Your task to perform on an android device: toggle javascript in the chrome app Image 0: 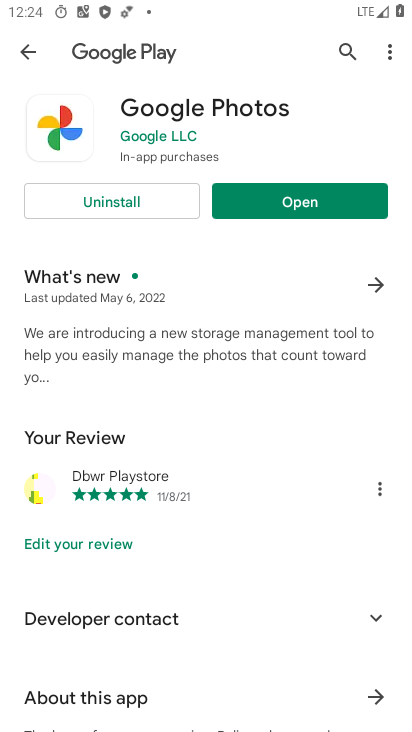
Step 0: press home button
Your task to perform on an android device: toggle javascript in the chrome app Image 1: 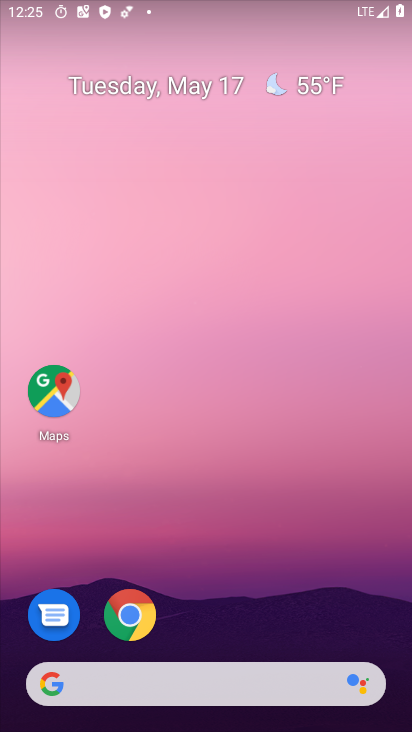
Step 1: click (141, 627)
Your task to perform on an android device: toggle javascript in the chrome app Image 2: 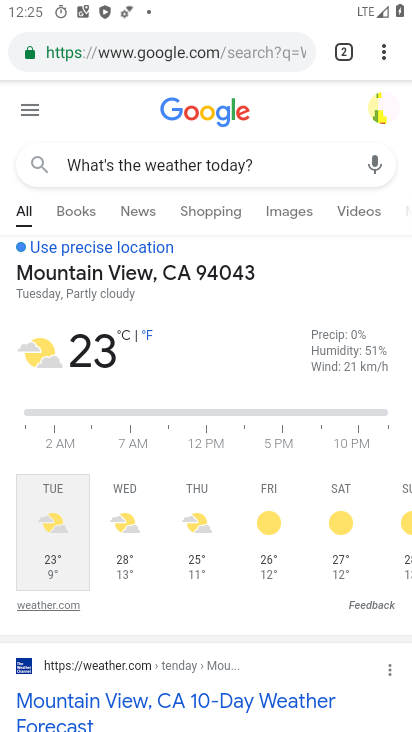
Step 2: drag from (388, 45) to (203, 580)
Your task to perform on an android device: toggle javascript in the chrome app Image 3: 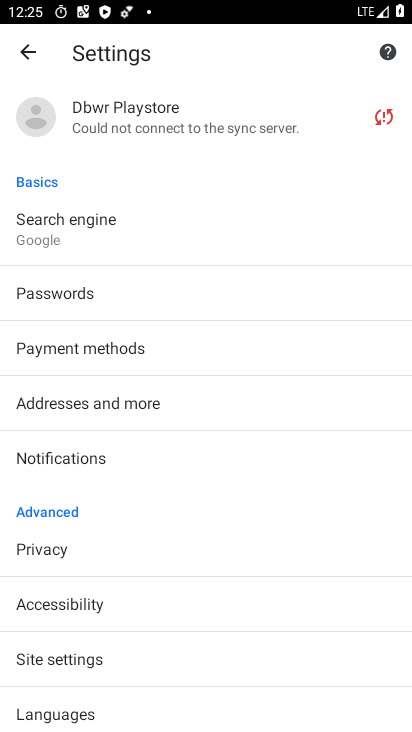
Step 3: drag from (246, 602) to (167, 250)
Your task to perform on an android device: toggle javascript in the chrome app Image 4: 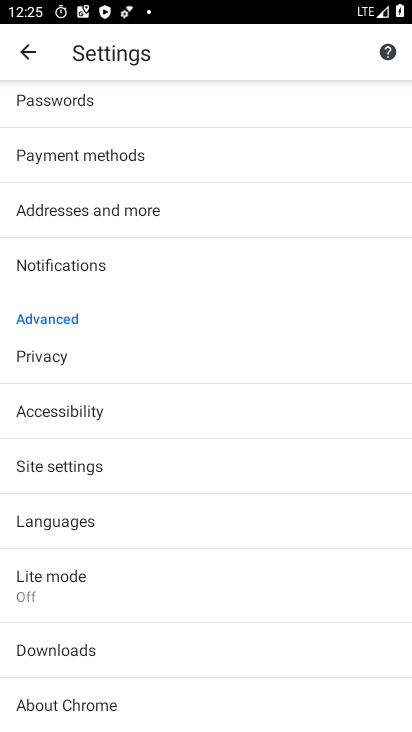
Step 4: click (88, 455)
Your task to perform on an android device: toggle javascript in the chrome app Image 5: 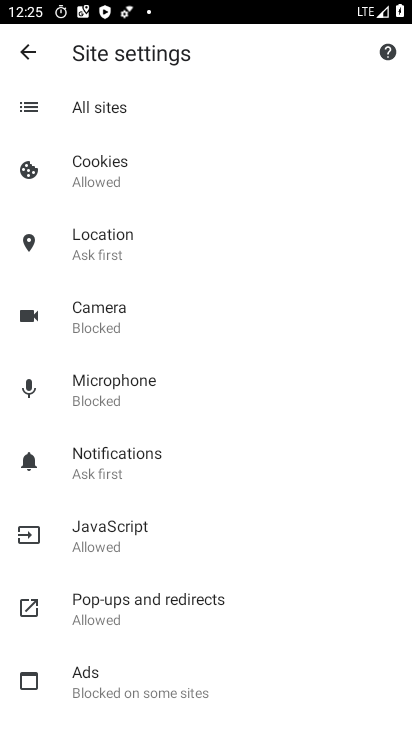
Step 5: click (179, 516)
Your task to perform on an android device: toggle javascript in the chrome app Image 6: 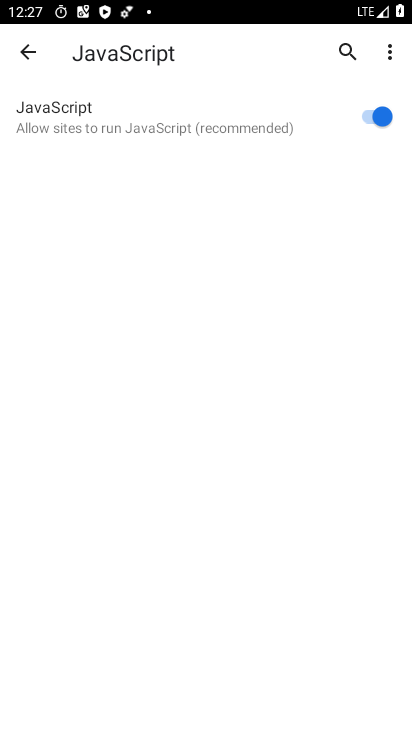
Step 6: task complete